Your task to perform on an android device: move an email to a new category in the gmail app Image 0: 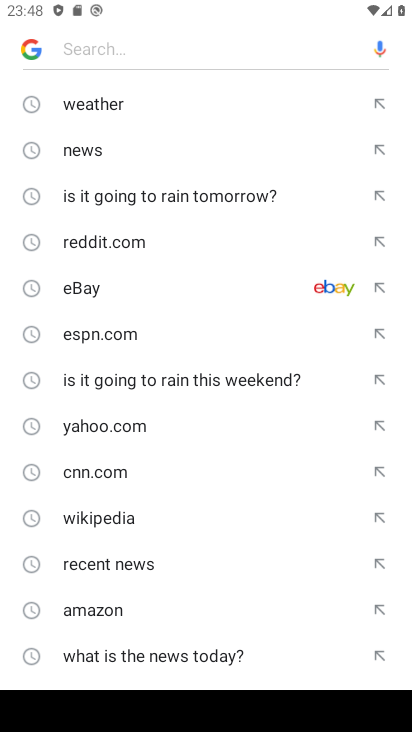
Step 0: press home button
Your task to perform on an android device: move an email to a new category in the gmail app Image 1: 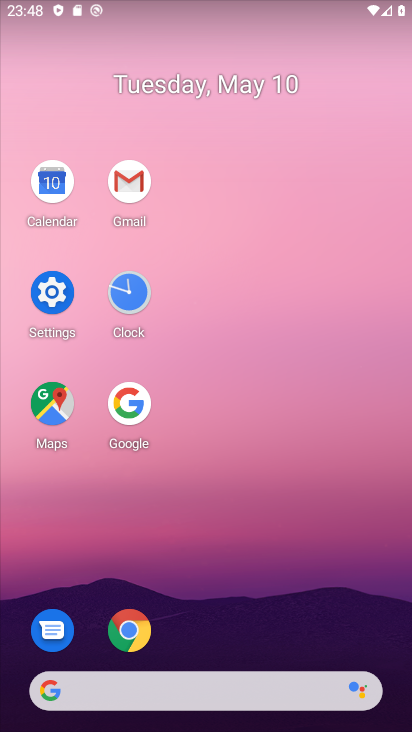
Step 1: click (137, 188)
Your task to perform on an android device: move an email to a new category in the gmail app Image 2: 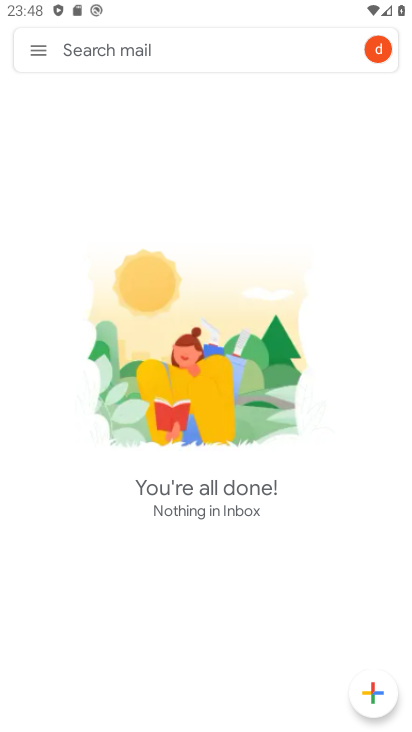
Step 2: click (46, 59)
Your task to perform on an android device: move an email to a new category in the gmail app Image 3: 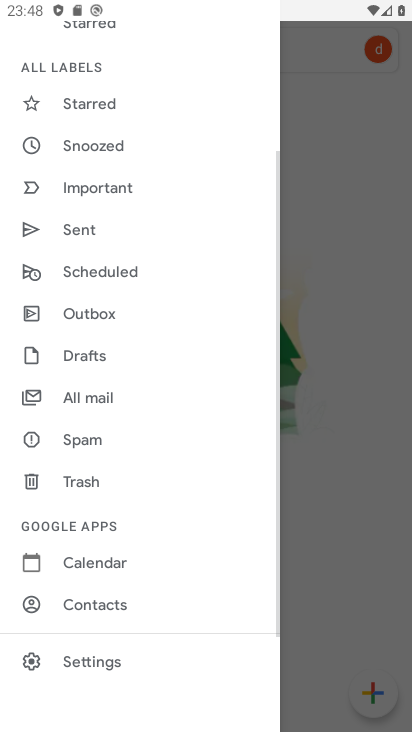
Step 3: click (118, 413)
Your task to perform on an android device: move an email to a new category in the gmail app Image 4: 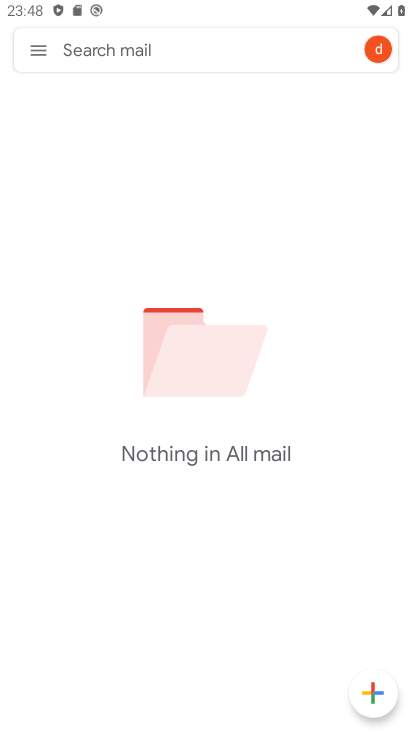
Step 4: task complete